Your task to perform on an android device: snooze an email in the gmail app Image 0: 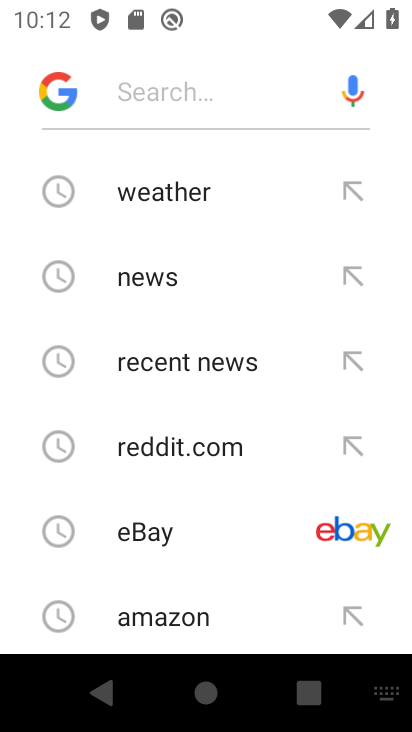
Step 0: press home button
Your task to perform on an android device: snooze an email in the gmail app Image 1: 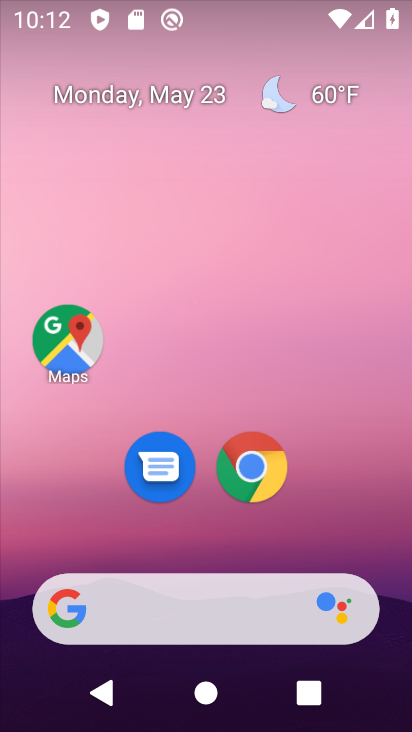
Step 1: drag from (196, 628) to (250, 76)
Your task to perform on an android device: snooze an email in the gmail app Image 2: 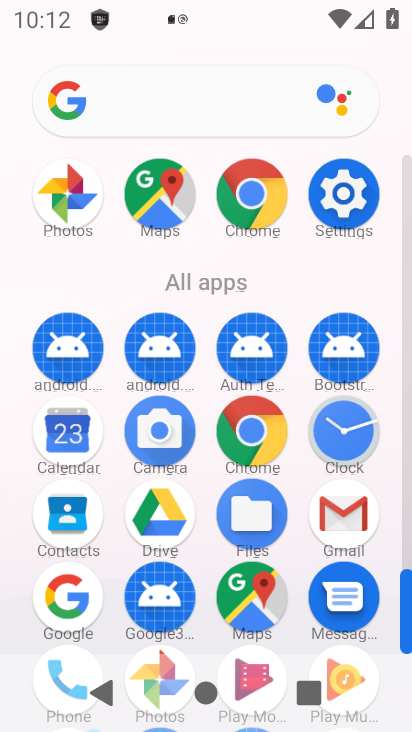
Step 2: click (368, 524)
Your task to perform on an android device: snooze an email in the gmail app Image 3: 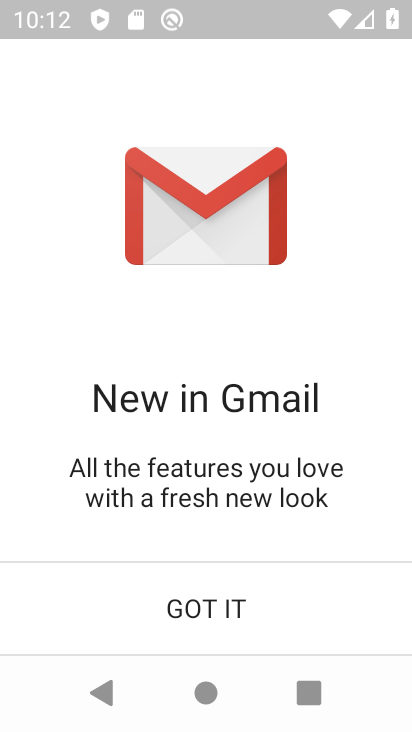
Step 3: click (232, 610)
Your task to perform on an android device: snooze an email in the gmail app Image 4: 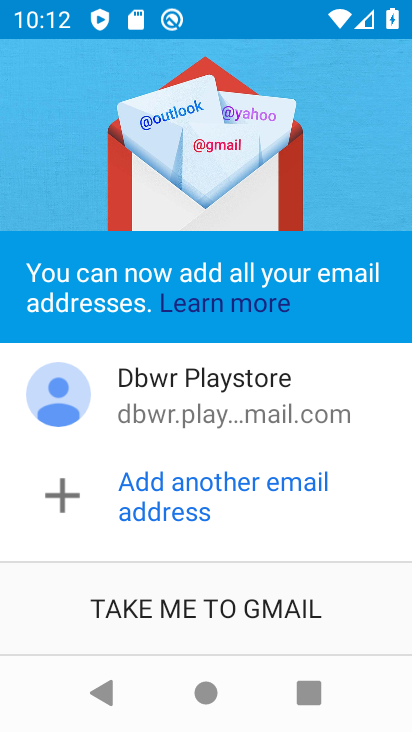
Step 4: click (233, 606)
Your task to perform on an android device: snooze an email in the gmail app Image 5: 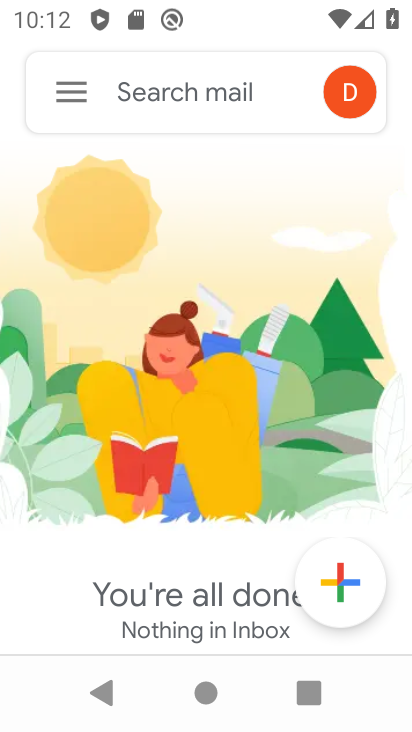
Step 5: task complete